Your task to perform on an android device: turn on the 24-hour format for clock Image 0: 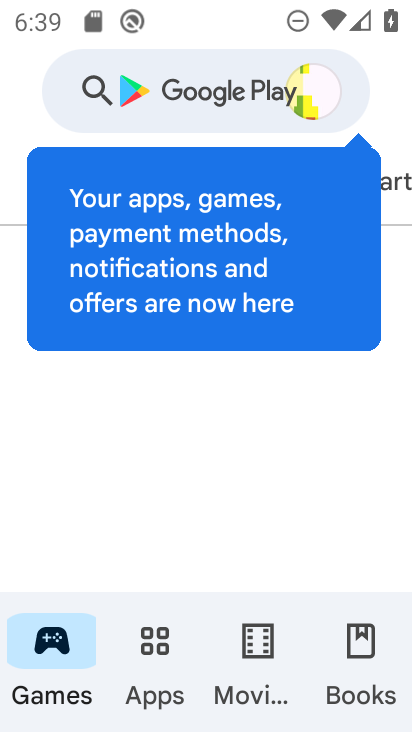
Step 0: press home button
Your task to perform on an android device: turn on the 24-hour format for clock Image 1: 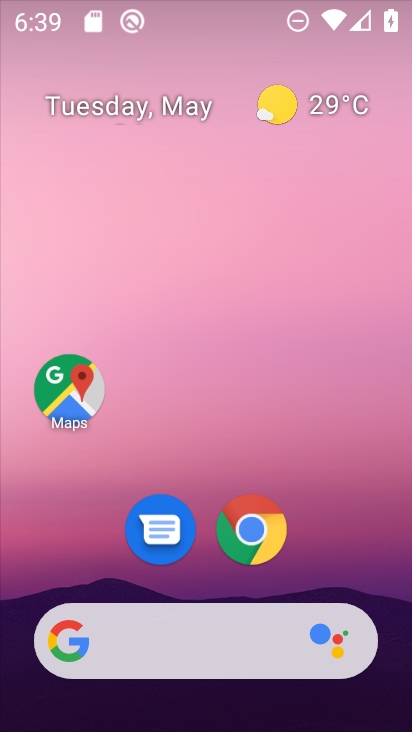
Step 1: drag from (358, 591) to (221, 3)
Your task to perform on an android device: turn on the 24-hour format for clock Image 2: 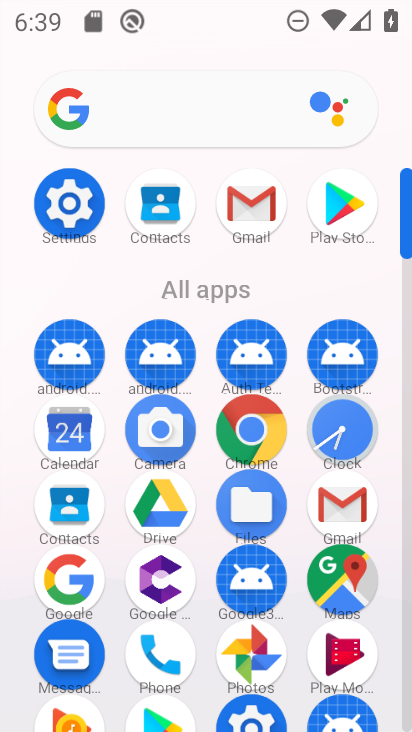
Step 2: click (337, 440)
Your task to perform on an android device: turn on the 24-hour format for clock Image 3: 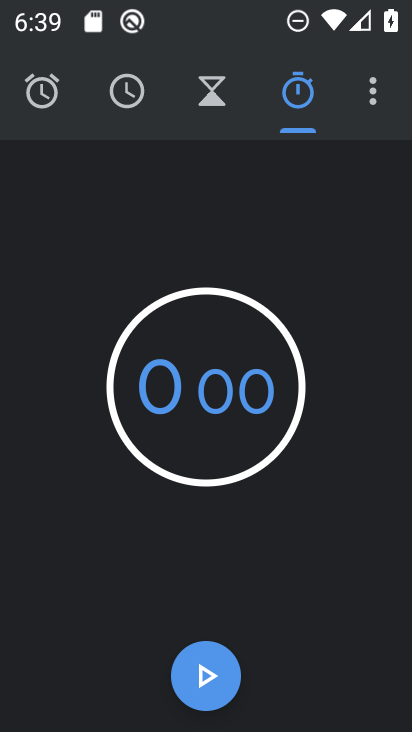
Step 3: click (373, 86)
Your task to perform on an android device: turn on the 24-hour format for clock Image 4: 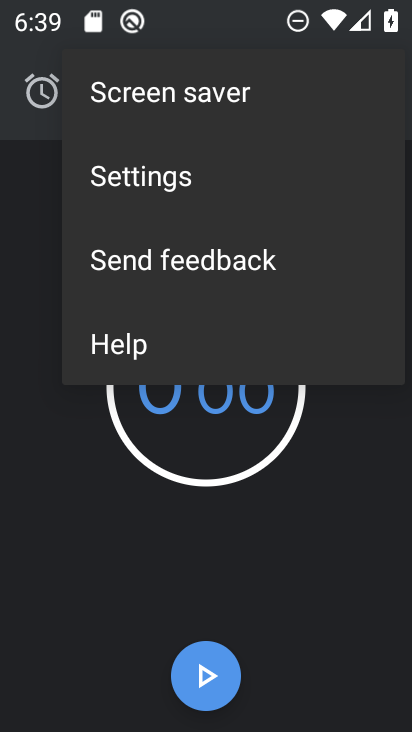
Step 4: click (250, 176)
Your task to perform on an android device: turn on the 24-hour format for clock Image 5: 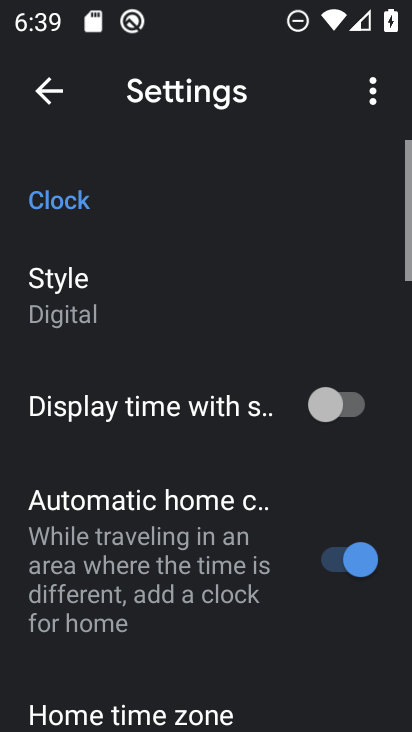
Step 5: drag from (223, 600) to (216, 135)
Your task to perform on an android device: turn on the 24-hour format for clock Image 6: 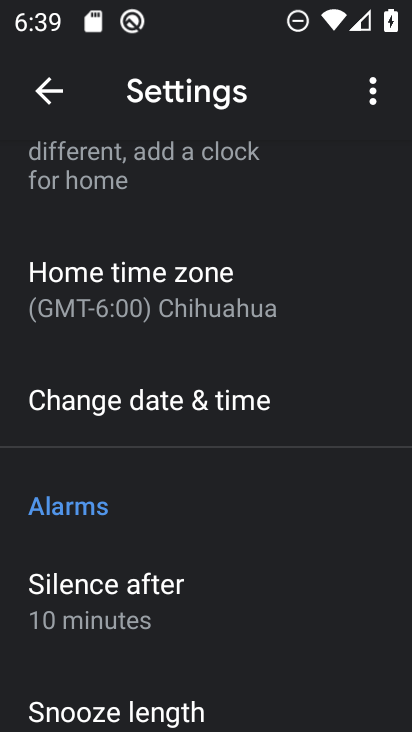
Step 6: click (169, 400)
Your task to perform on an android device: turn on the 24-hour format for clock Image 7: 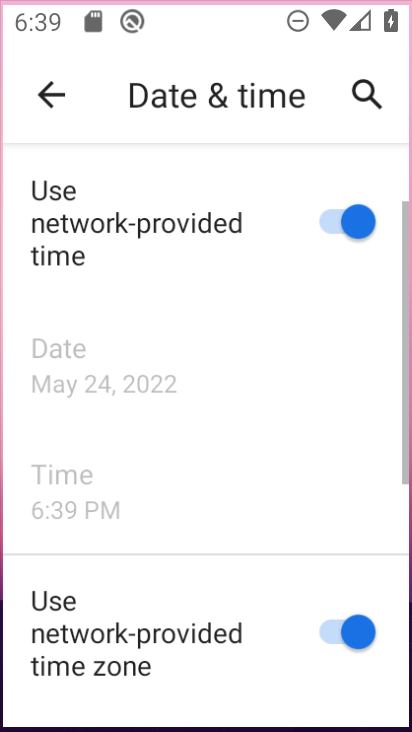
Step 7: task complete